Your task to perform on an android device: Search for pizza restaurants on Maps Image 0: 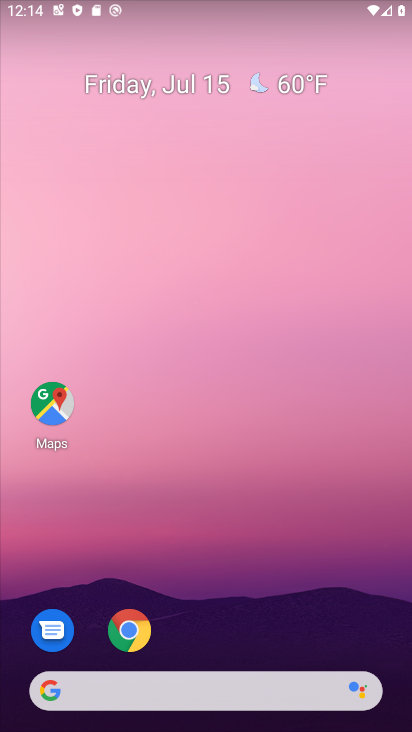
Step 0: click (45, 400)
Your task to perform on an android device: Search for pizza restaurants on Maps Image 1: 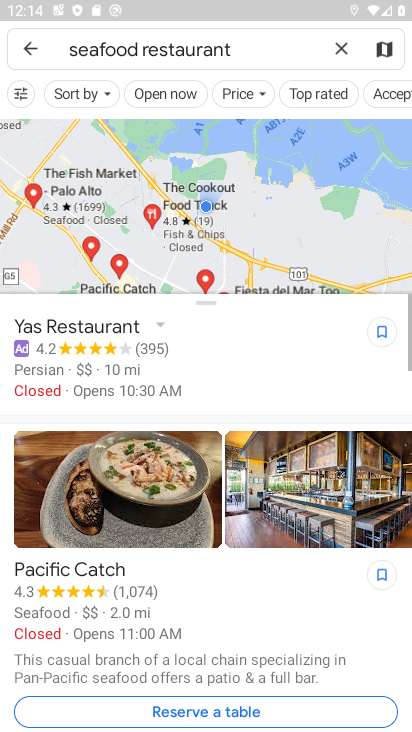
Step 1: click (37, 60)
Your task to perform on an android device: Search for pizza restaurants on Maps Image 2: 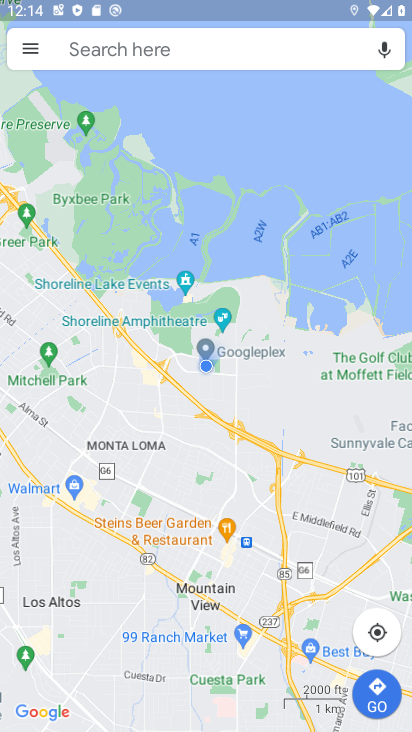
Step 2: click (104, 54)
Your task to perform on an android device: Search for pizza restaurants on Maps Image 3: 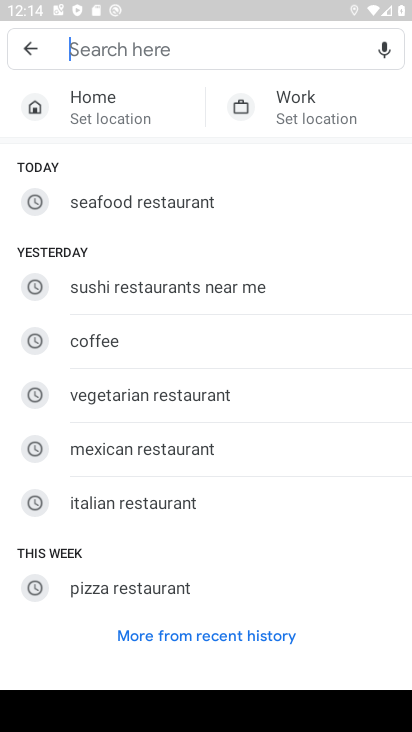
Step 3: type " pizza restaurants"
Your task to perform on an android device: Search for pizza restaurants on Maps Image 4: 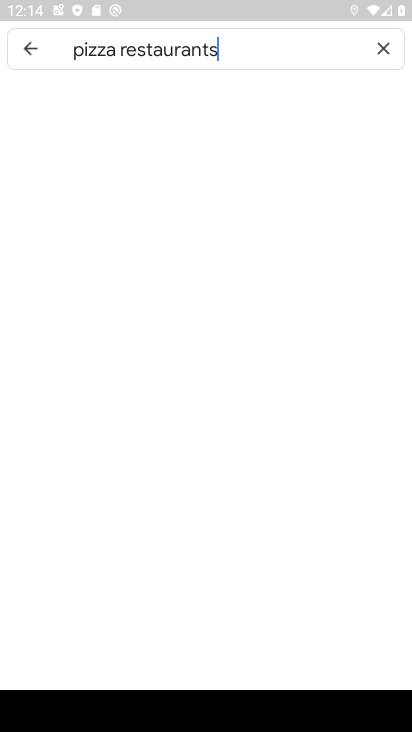
Step 4: type ""
Your task to perform on an android device: Search for pizza restaurants on Maps Image 5: 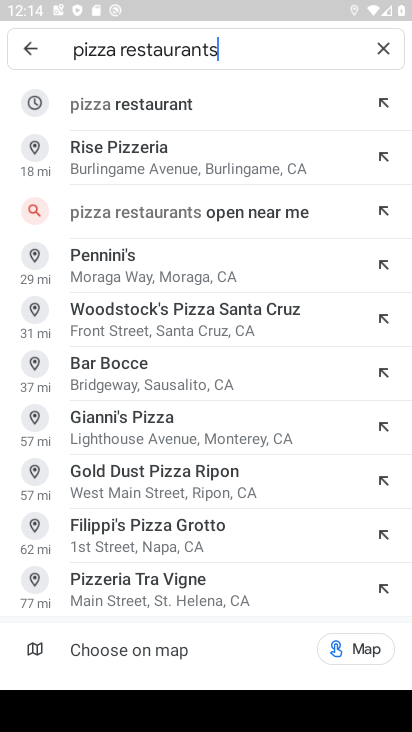
Step 5: click (171, 102)
Your task to perform on an android device: Search for pizza restaurants on Maps Image 6: 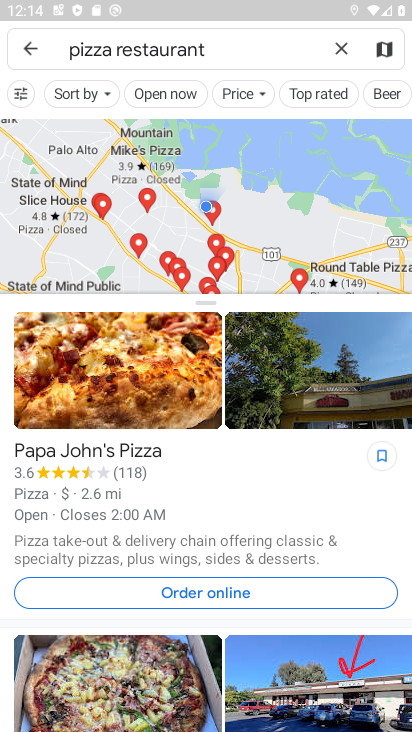
Step 6: task complete